Your task to perform on an android device: Find coffee shops on Maps Image 0: 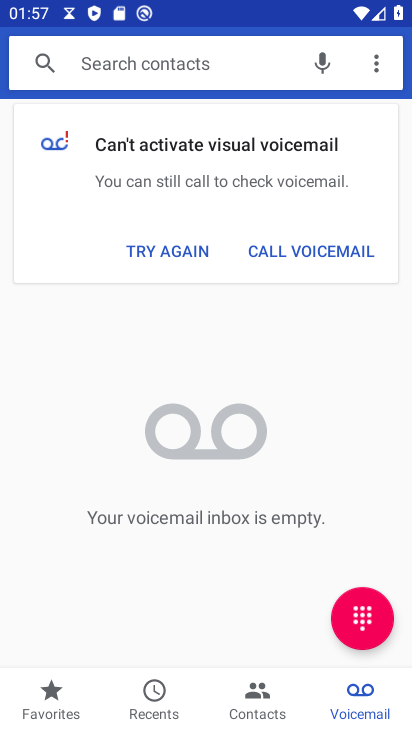
Step 0: press home button
Your task to perform on an android device: Find coffee shops on Maps Image 1: 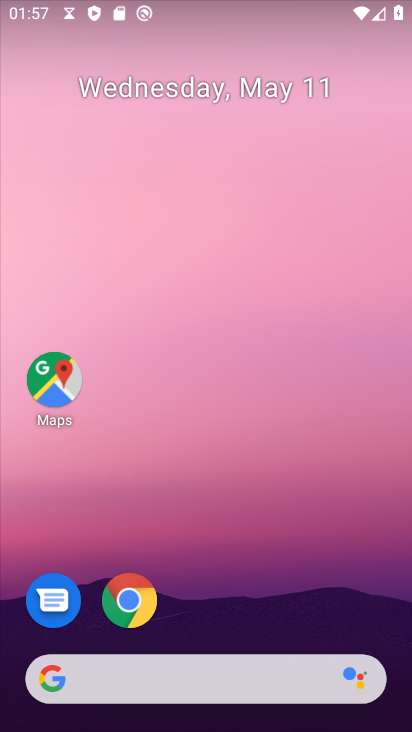
Step 1: click (53, 369)
Your task to perform on an android device: Find coffee shops on Maps Image 2: 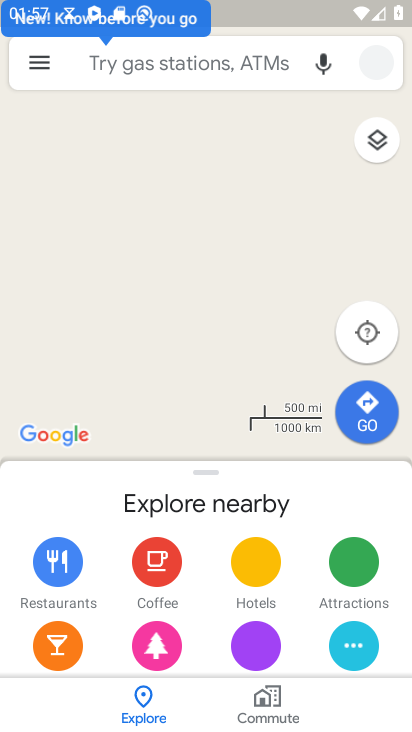
Step 2: click (180, 51)
Your task to perform on an android device: Find coffee shops on Maps Image 3: 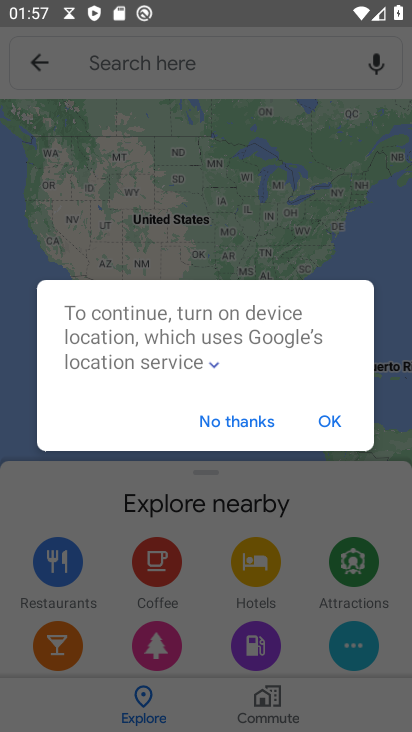
Step 3: click (324, 416)
Your task to perform on an android device: Find coffee shops on Maps Image 4: 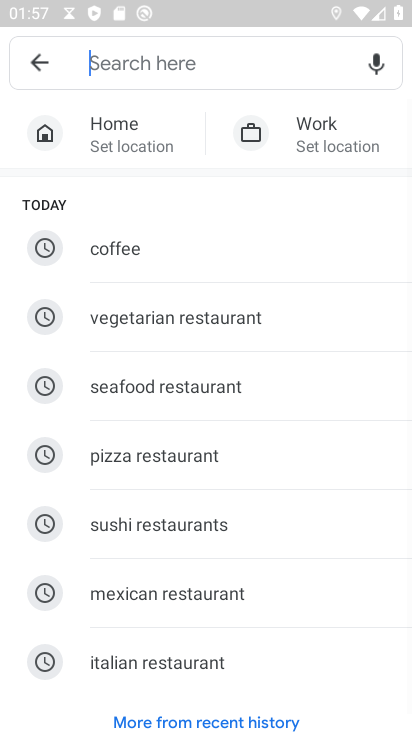
Step 4: click (126, 245)
Your task to perform on an android device: Find coffee shops on Maps Image 5: 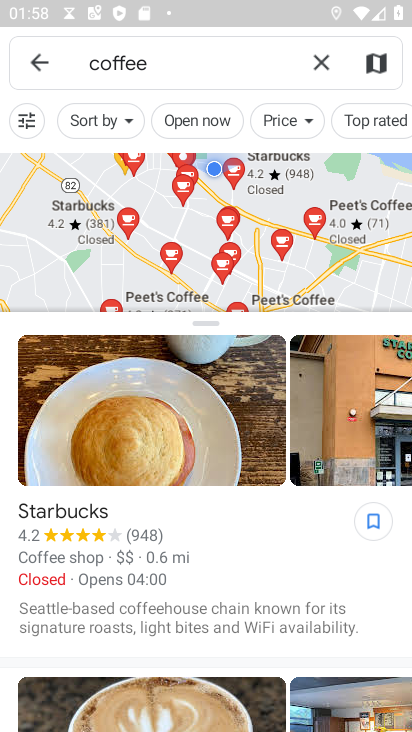
Step 5: task complete